Your task to perform on an android device: open app "Duolingo: language lessons" (install if not already installed), go to login, and select forgot password Image 0: 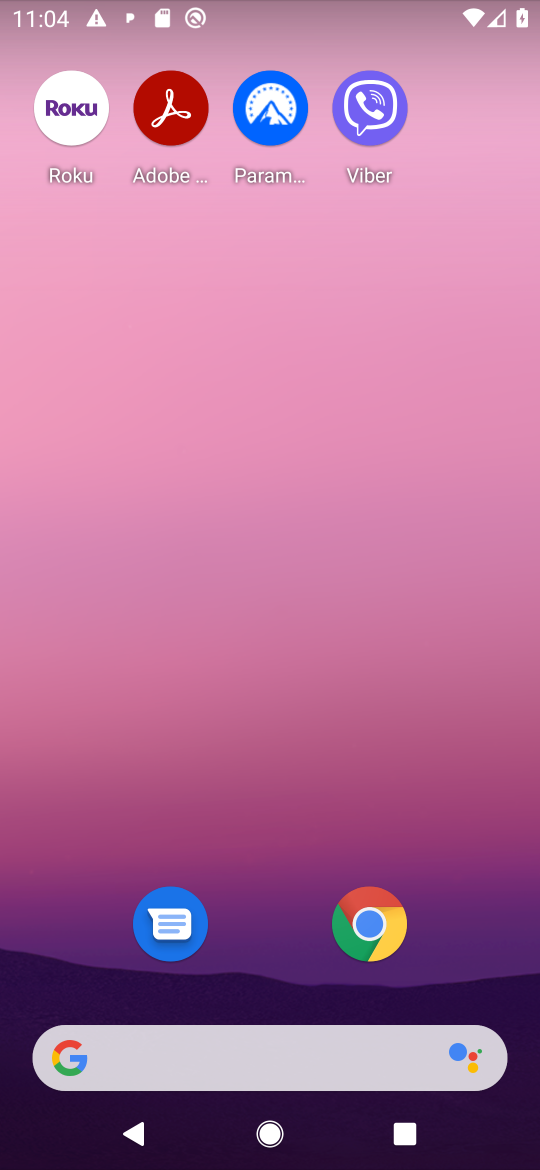
Step 0: press home button
Your task to perform on an android device: open app "Duolingo: language lessons" (install if not already installed), go to login, and select forgot password Image 1: 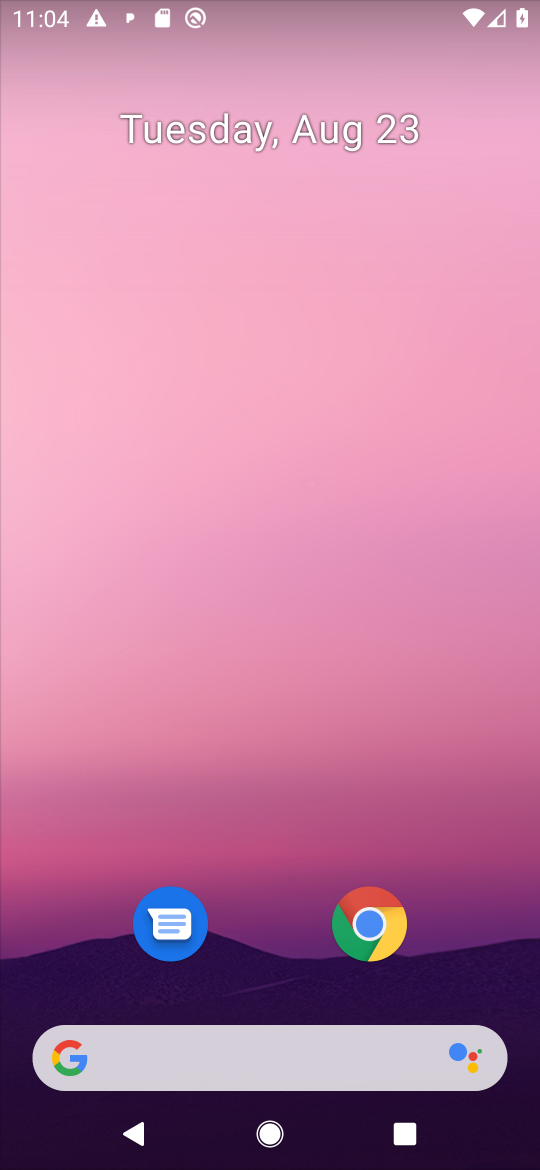
Step 1: drag from (468, 946) to (403, 164)
Your task to perform on an android device: open app "Duolingo: language lessons" (install if not already installed), go to login, and select forgot password Image 2: 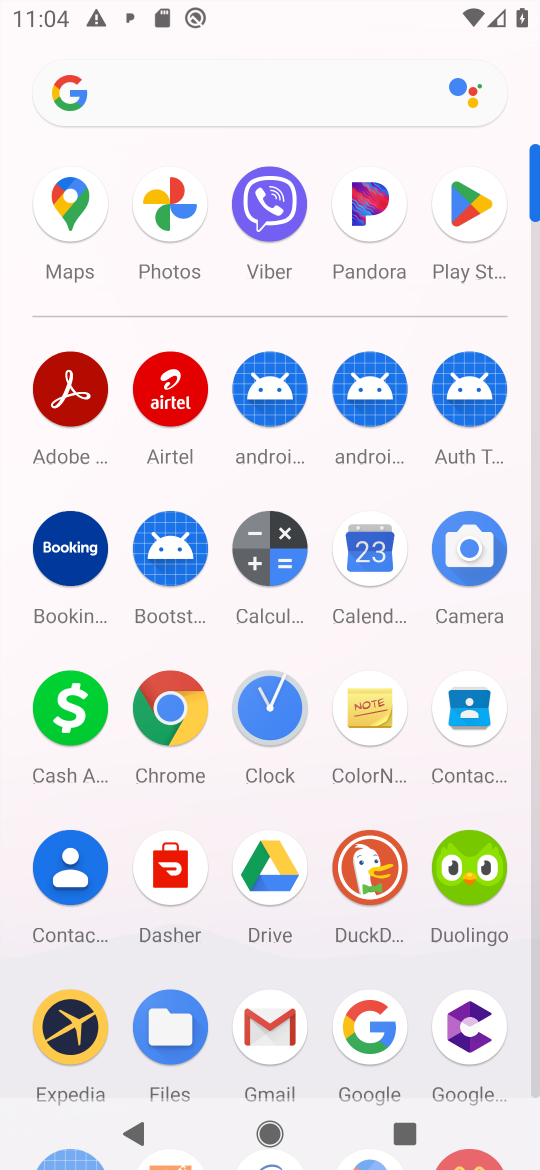
Step 2: click (462, 216)
Your task to perform on an android device: open app "Duolingo: language lessons" (install if not already installed), go to login, and select forgot password Image 3: 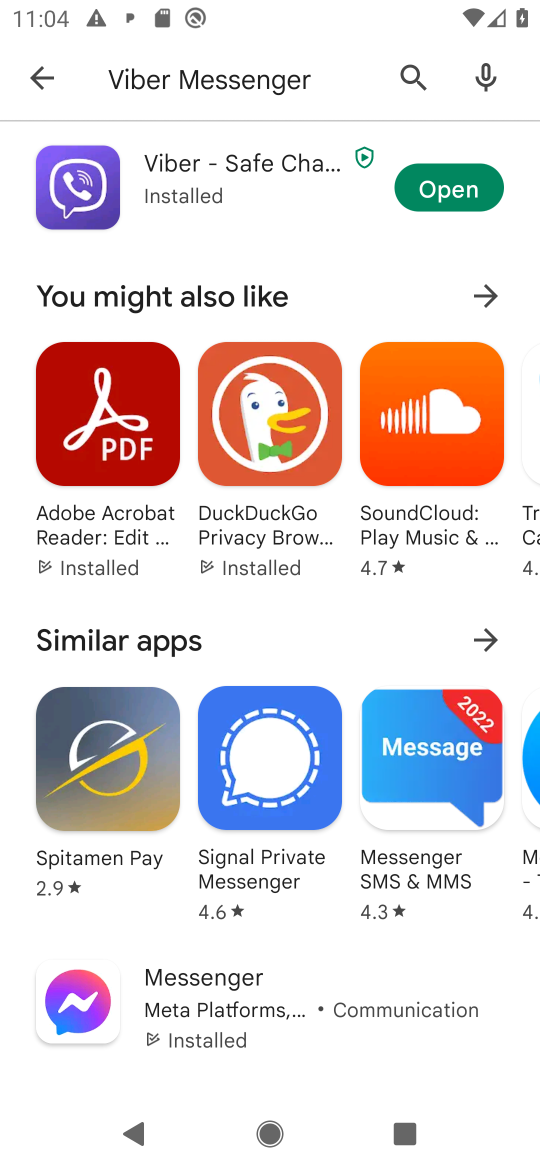
Step 3: press back button
Your task to perform on an android device: open app "Duolingo: language lessons" (install if not already installed), go to login, and select forgot password Image 4: 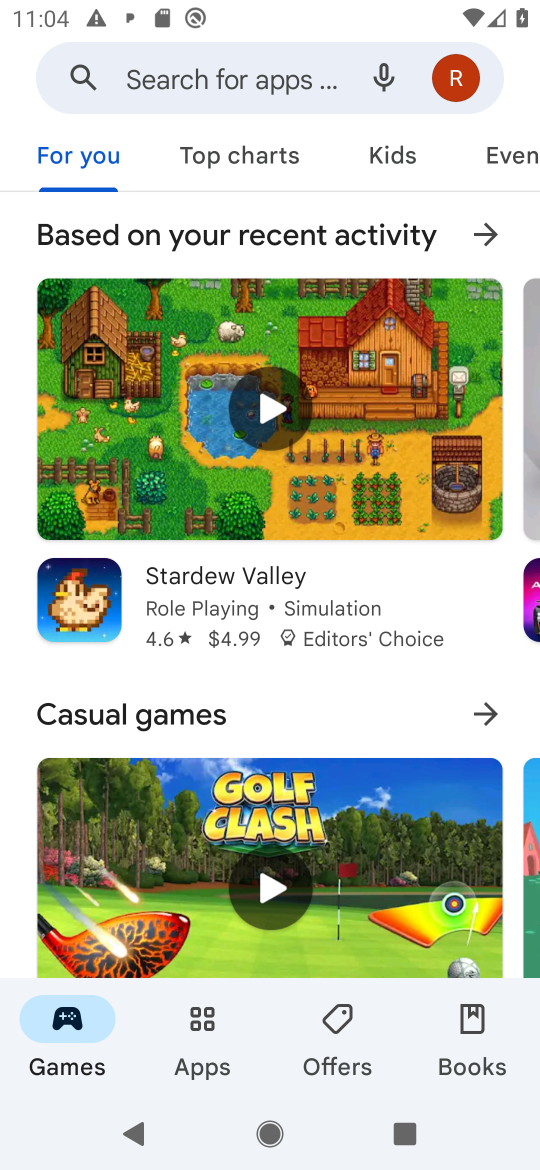
Step 4: click (204, 73)
Your task to perform on an android device: open app "Duolingo: language lessons" (install if not already installed), go to login, and select forgot password Image 5: 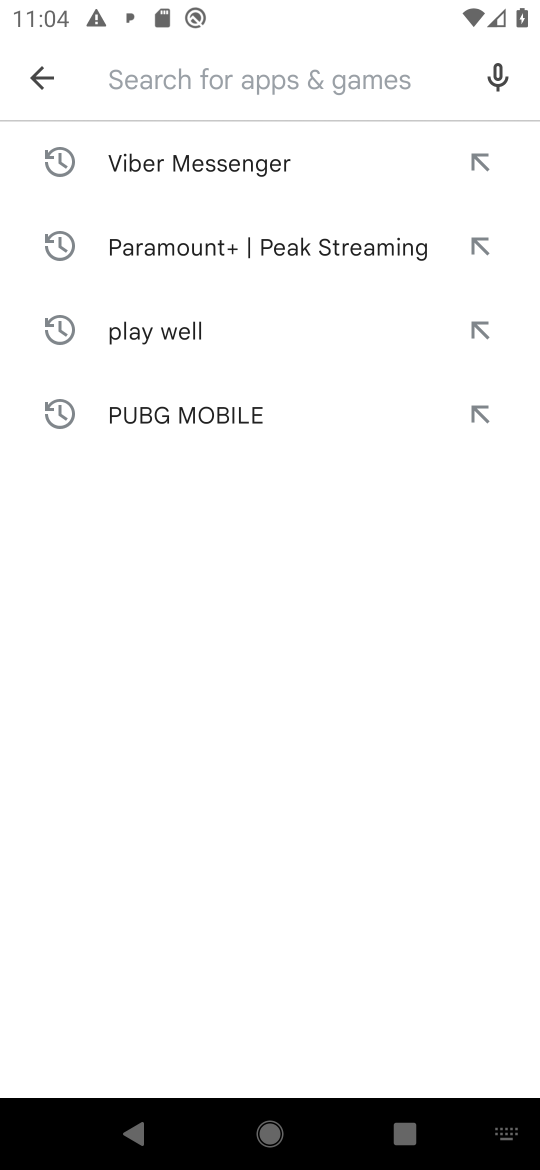
Step 5: type "Duolingo: language lessons"
Your task to perform on an android device: open app "Duolingo: language lessons" (install if not already installed), go to login, and select forgot password Image 6: 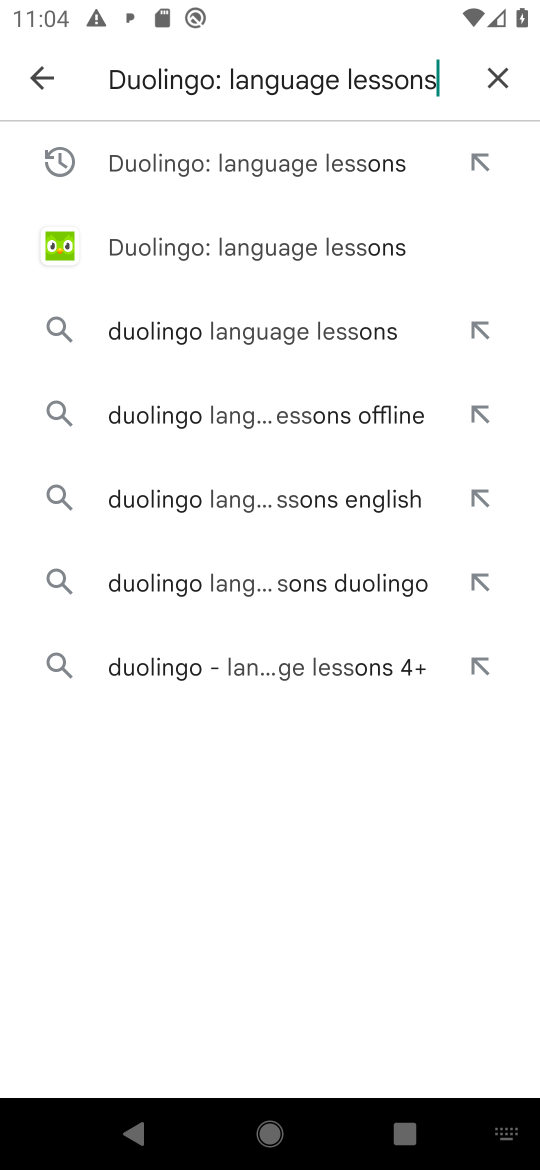
Step 6: press enter
Your task to perform on an android device: open app "Duolingo: language lessons" (install if not already installed), go to login, and select forgot password Image 7: 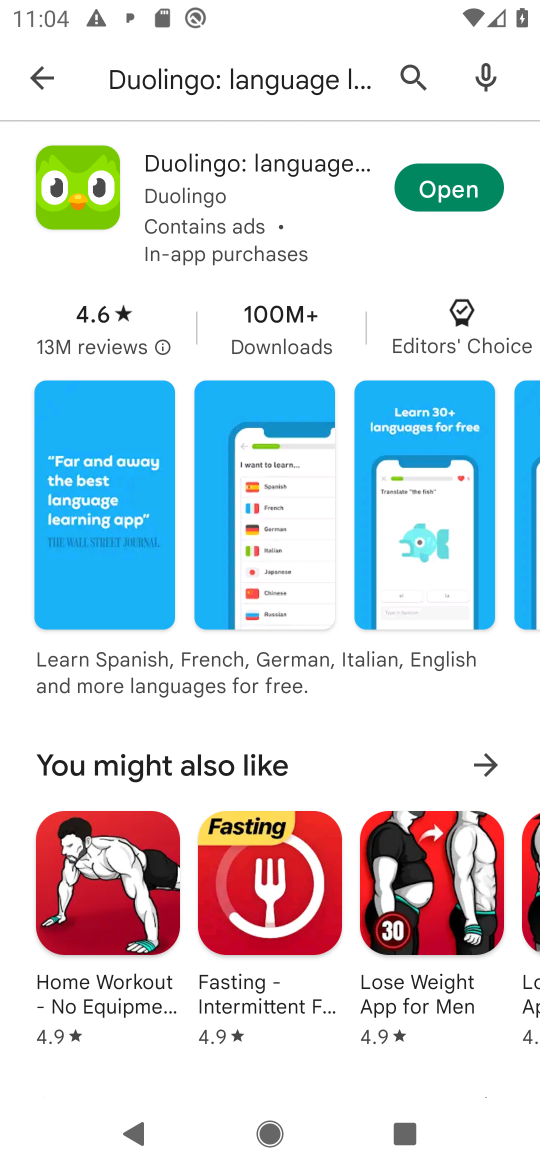
Step 7: click (462, 180)
Your task to perform on an android device: open app "Duolingo: language lessons" (install if not already installed), go to login, and select forgot password Image 8: 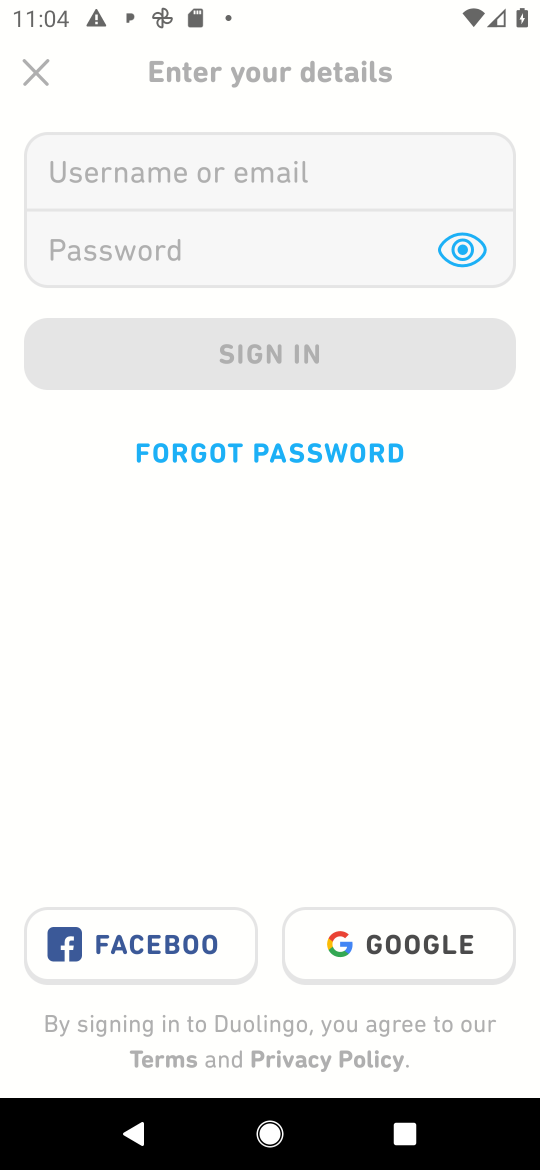
Step 8: click (323, 449)
Your task to perform on an android device: open app "Duolingo: language lessons" (install if not already installed), go to login, and select forgot password Image 9: 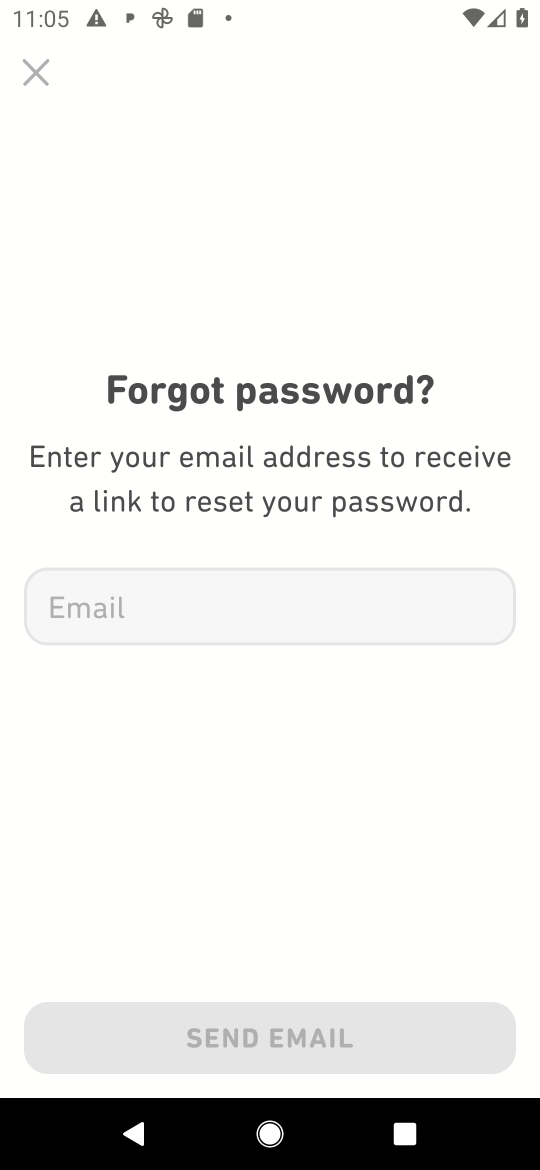
Step 9: task complete